Your task to perform on an android device: set default search engine in the chrome app Image 0: 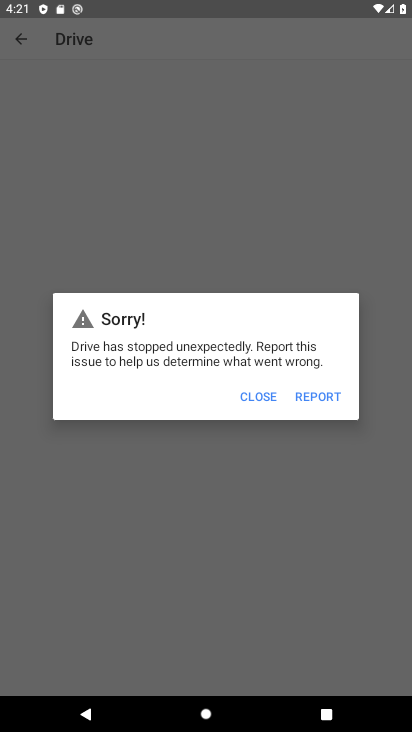
Step 0: press home button
Your task to perform on an android device: set default search engine in the chrome app Image 1: 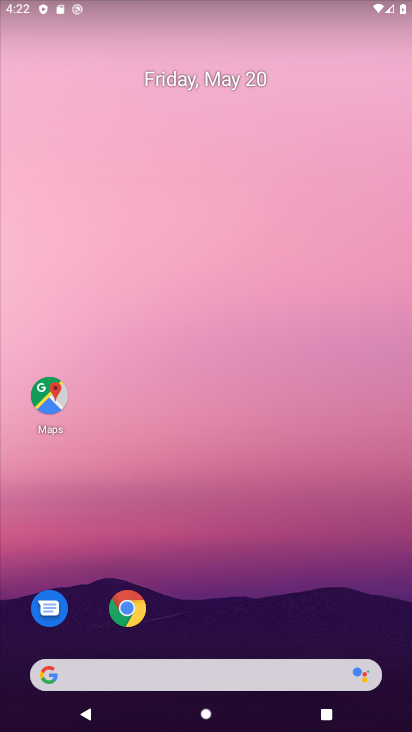
Step 1: click (132, 616)
Your task to perform on an android device: set default search engine in the chrome app Image 2: 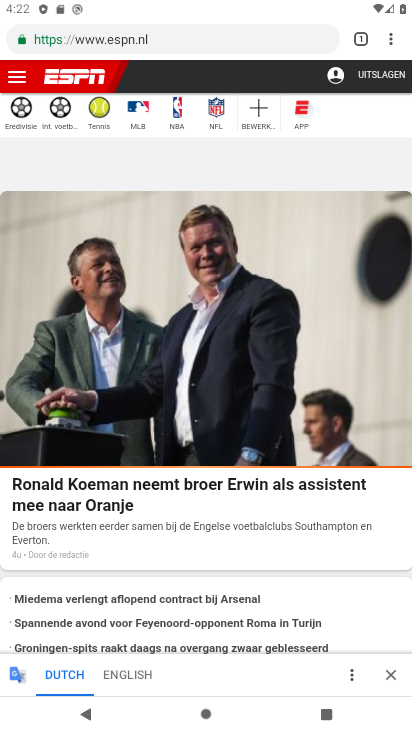
Step 2: drag from (388, 35) to (256, 458)
Your task to perform on an android device: set default search engine in the chrome app Image 3: 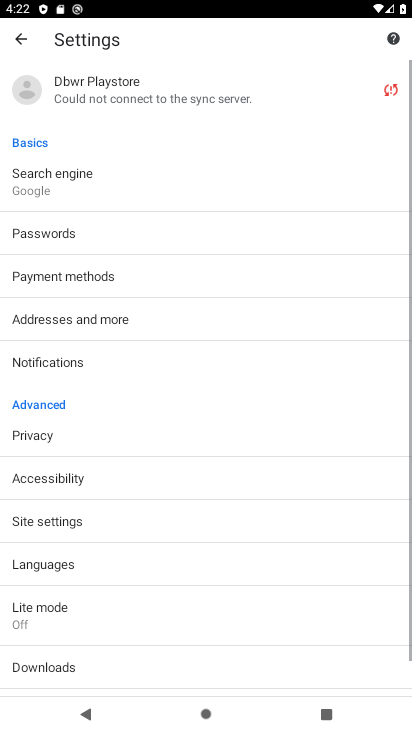
Step 3: click (67, 185)
Your task to perform on an android device: set default search engine in the chrome app Image 4: 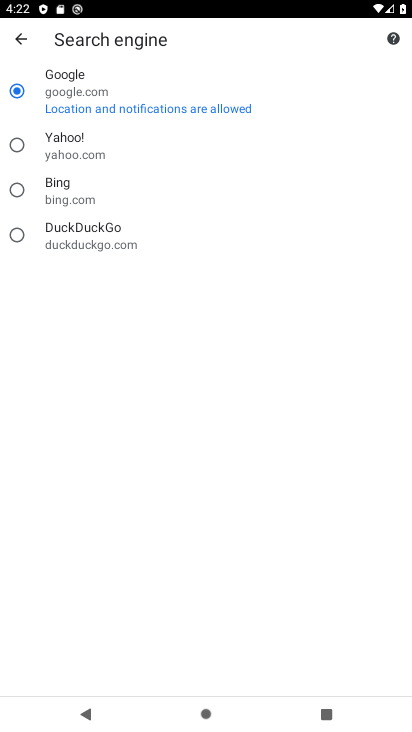
Step 4: task complete